Your task to perform on an android device: Open Youtube and go to the subscriptions tab Image 0: 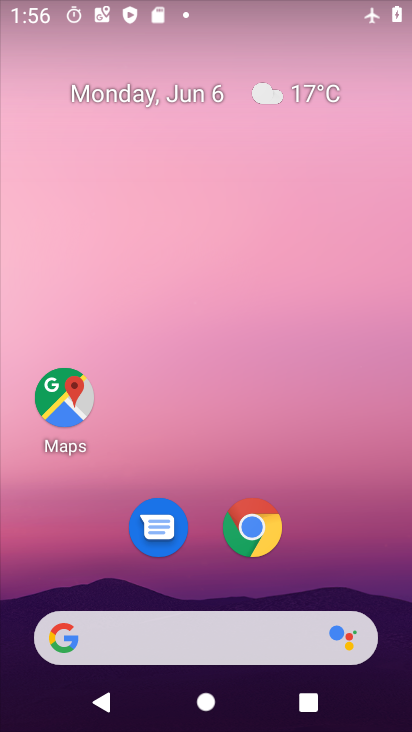
Step 0: drag from (244, 723) to (260, 95)
Your task to perform on an android device: Open Youtube and go to the subscriptions tab Image 1: 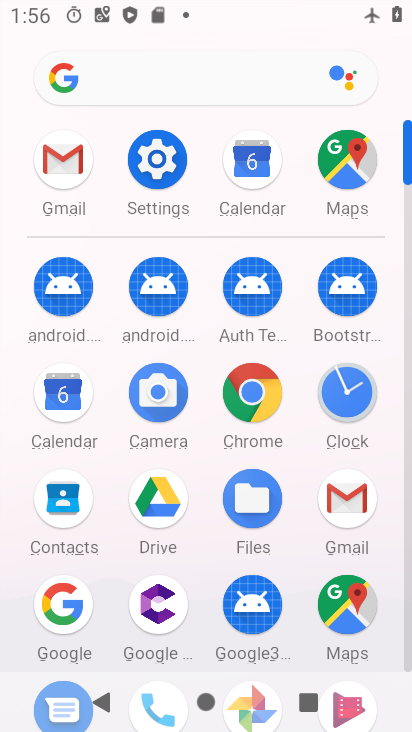
Step 1: drag from (298, 633) to (293, 269)
Your task to perform on an android device: Open Youtube and go to the subscriptions tab Image 2: 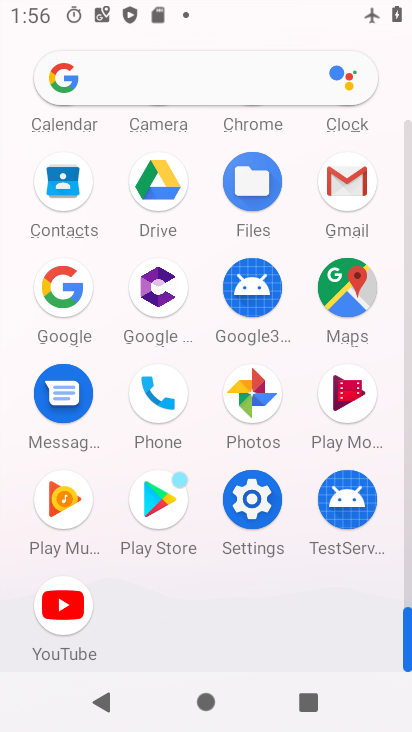
Step 2: click (64, 616)
Your task to perform on an android device: Open Youtube and go to the subscriptions tab Image 3: 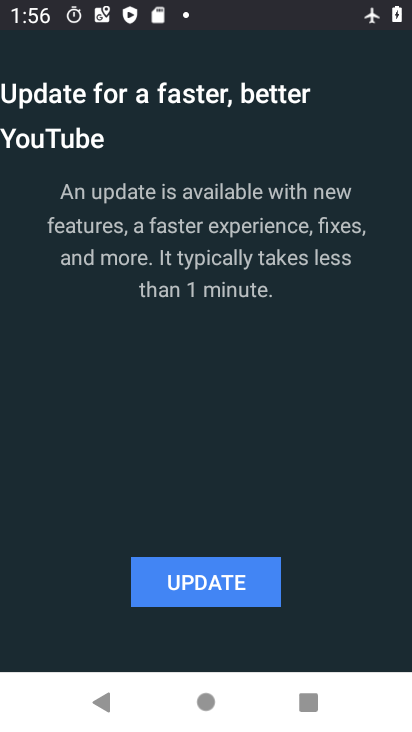
Step 3: click (186, 579)
Your task to perform on an android device: Open Youtube and go to the subscriptions tab Image 4: 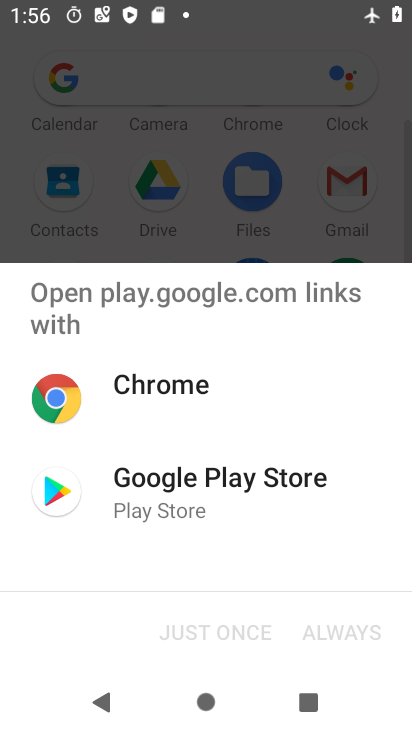
Step 4: click (156, 489)
Your task to perform on an android device: Open Youtube and go to the subscriptions tab Image 5: 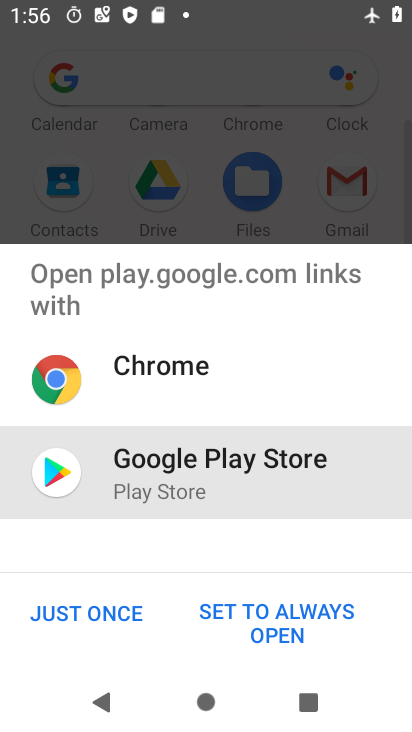
Step 5: click (101, 615)
Your task to perform on an android device: Open Youtube and go to the subscriptions tab Image 6: 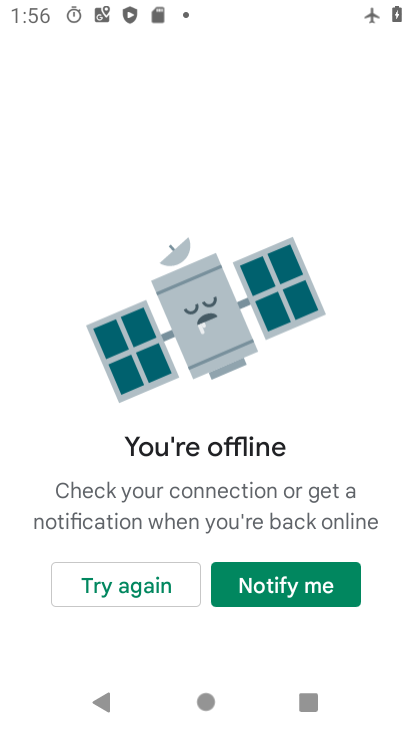
Step 6: click (161, 584)
Your task to perform on an android device: Open Youtube and go to the subscriptions tab Image 7: 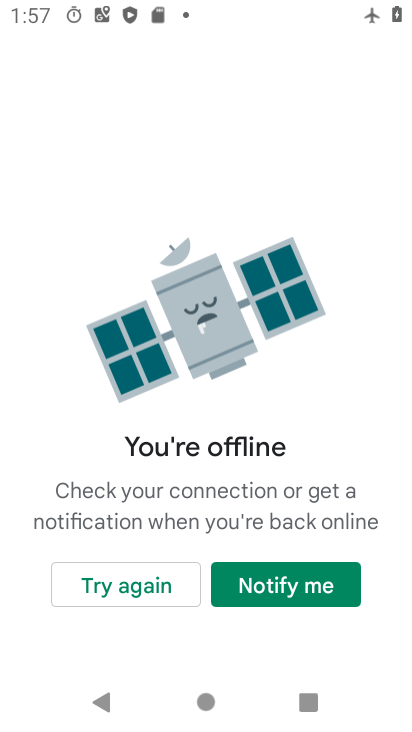
Step 7: task complete